Your task to perform on an android device: Open Chrome and go to the settings page Image 0: 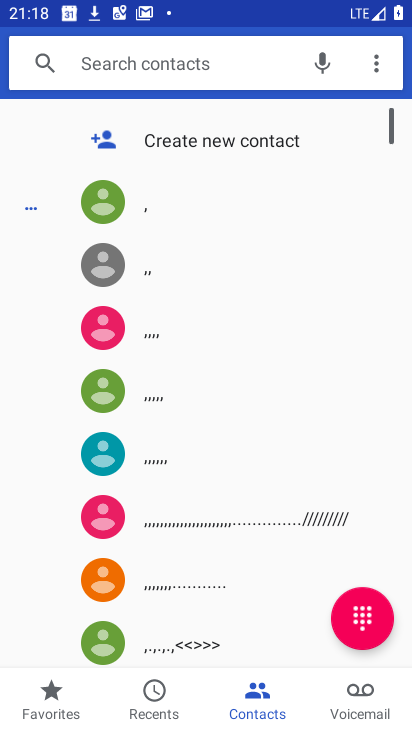
Step 0: press home button
Your task to perform on an android device: Open Chrome and go to the settings page Image 1: 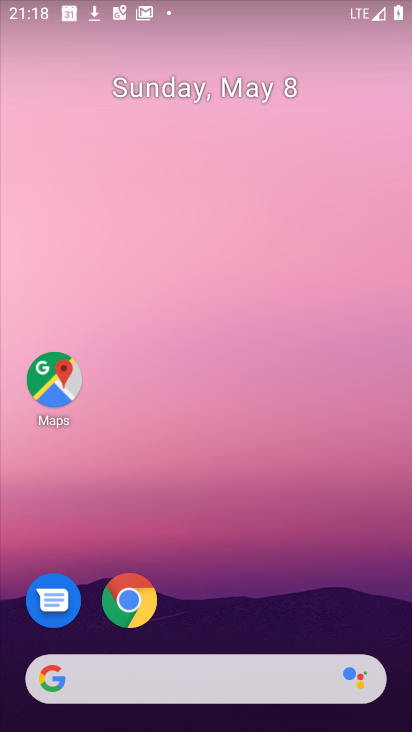
Step 1: drag from (310, 704) to (317, 233)
Your task to perform on an android device: Open Chrome and go to the settings page Image 2: 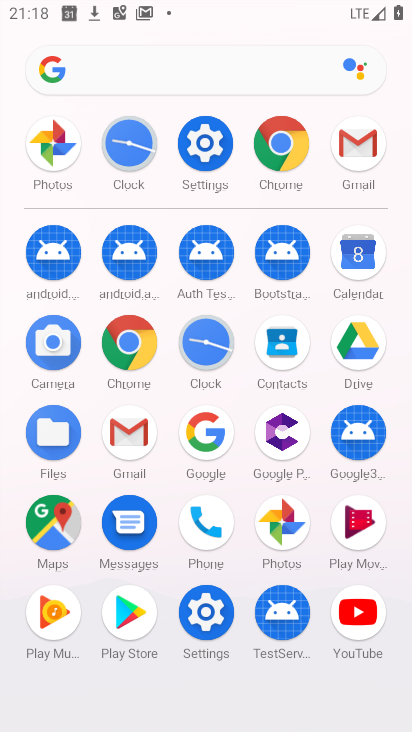
Step 2: click (138, 344)
Your task to perform on an android device: Open Chrome and go to the settings page Image 3: 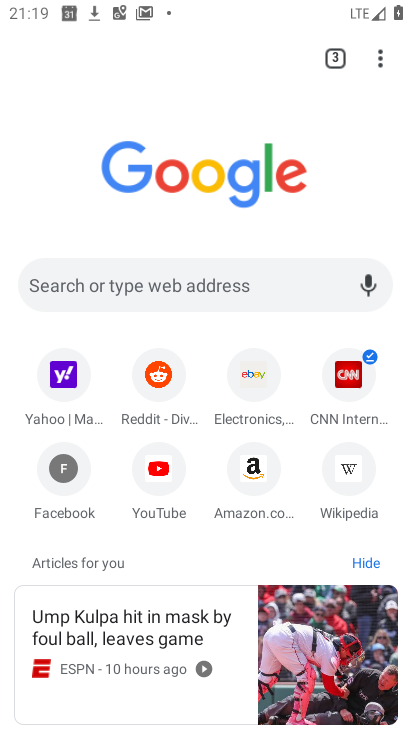
Step 3: click (377, 70)
Your task to perform on an android device: Open Chrome and go to the settings page Image 4: 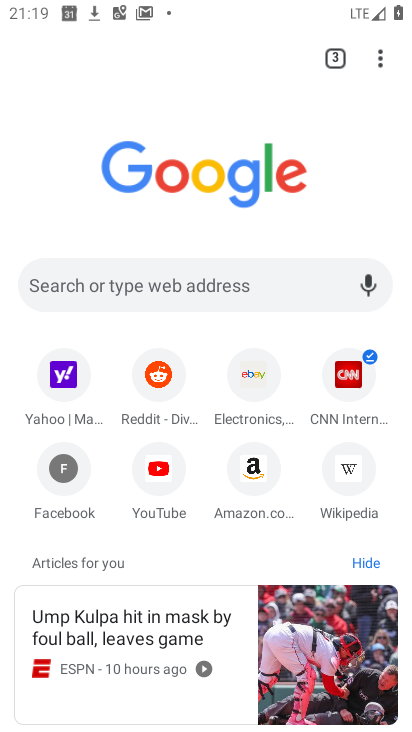
Step 4: click (373, 80)
Your task to perform on an android device: Open Chrome and go to the settings page Image 5: 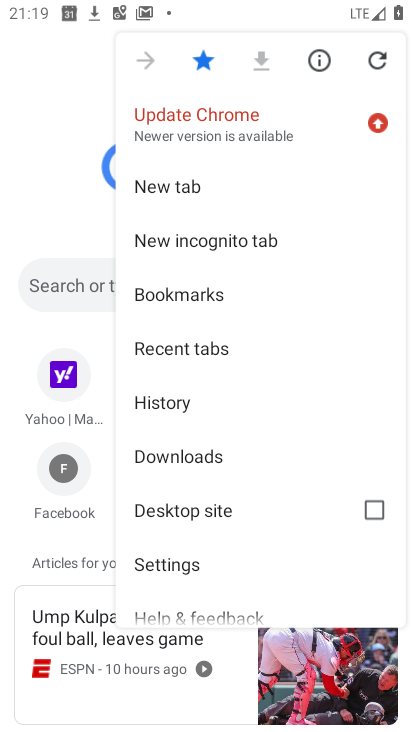
Step 5: click (191, 552)
Your task to perform on an android device: Open Chrome and go to the settings page Image 6: 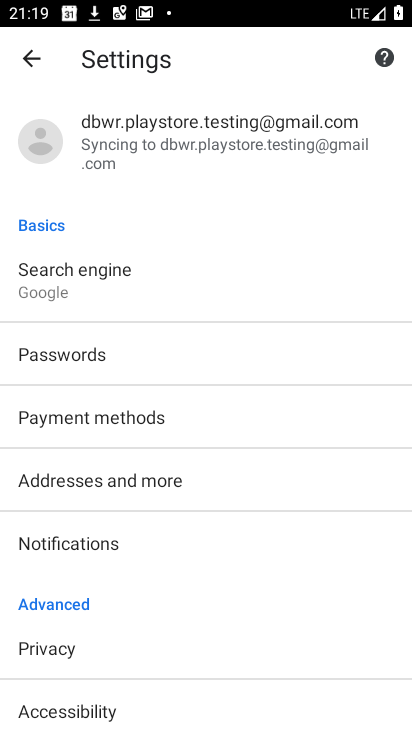
Step 6: task complete